Your task to perform on an android device: Search for seafood restaurants on Google Maps Image 0: 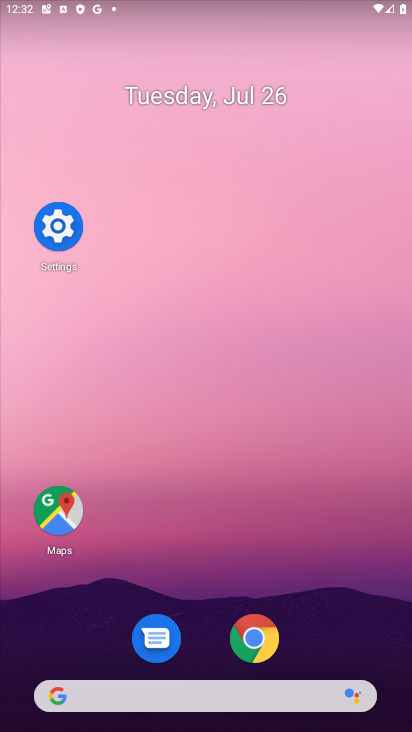
Step 0: click (57, 525)
Your task to perform on an android device: Search for seafood restaurants on Google Maps Image 1: 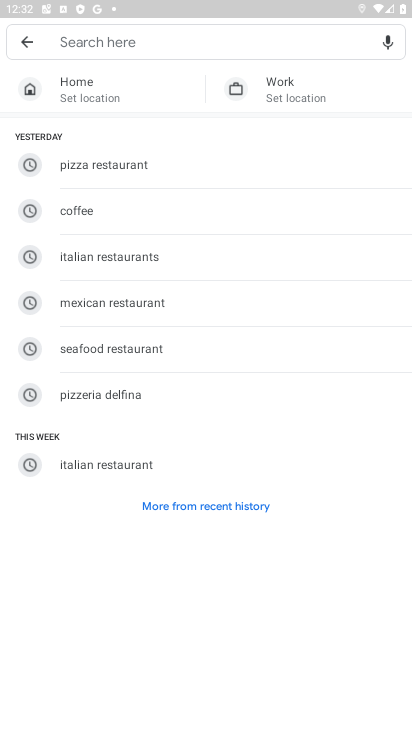
Step 1: click (143, 355)
Your task to perform on an android device: Search for seafood restaurants on Google Maps Image 2: 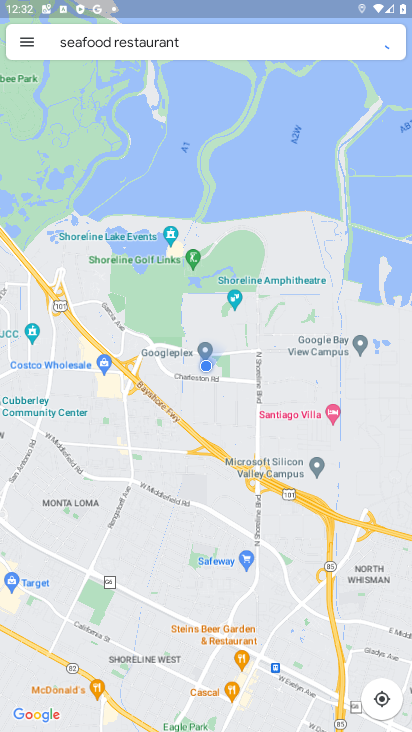
Step 2: task complete